Your task to perform on an android device: Open Chrome and go to settings Image 0: 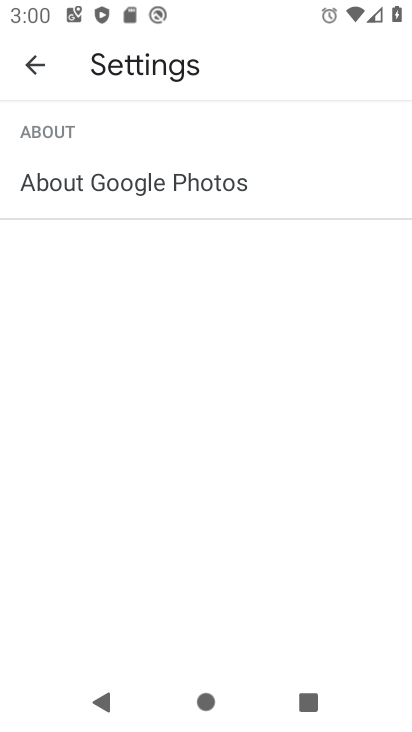
Step 0: press home button
Your task to perform on an android device: Open Chrome and go to settings Image 1: 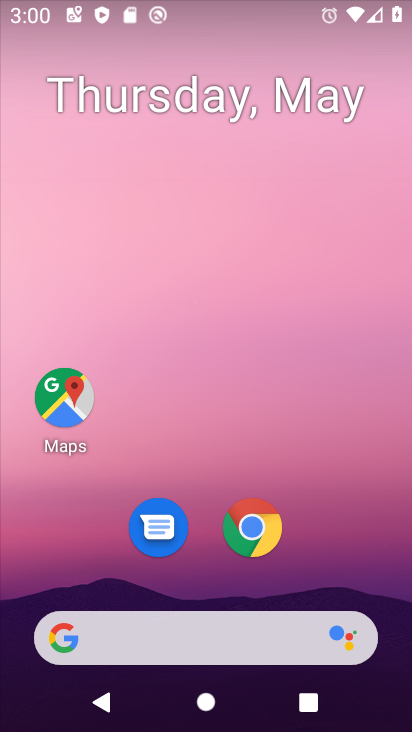
Step 1: click (274, 528)
Your task to perform on an android device: Open Chrome and go to settings Image 2: 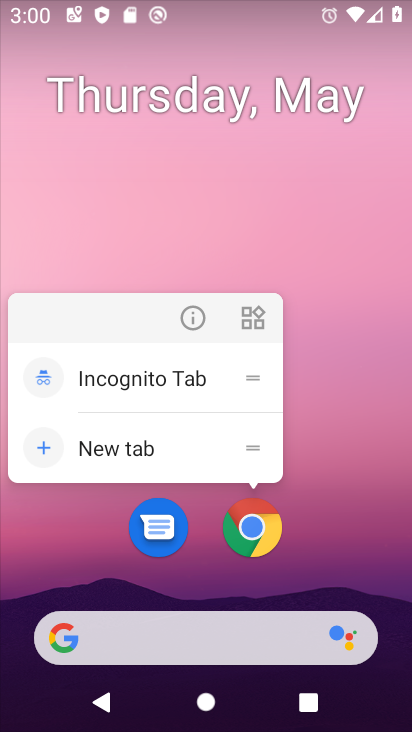
Step 2: click (274, 529)
Your task to perform on an android device: Open Chrome and go to settings Image 3: 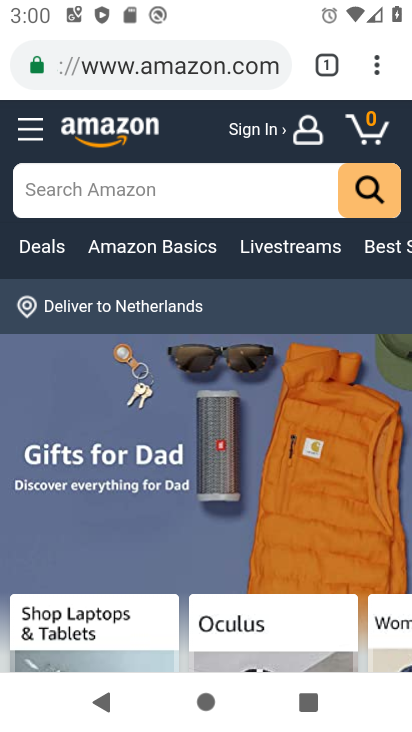
Step 3: task complete